Your task to perform on an android device: add a contact Image 0: 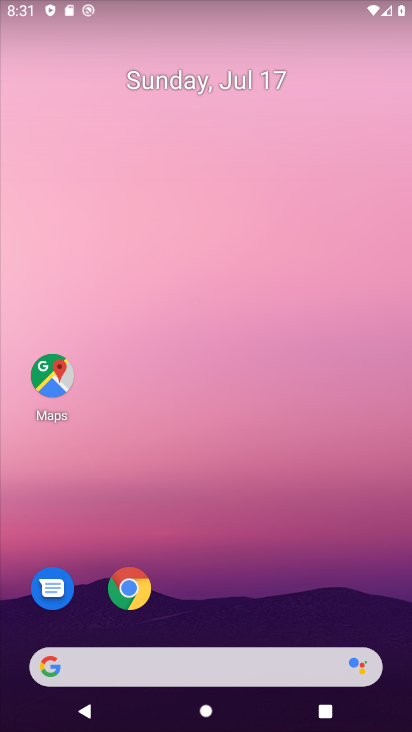
Step 0: drag from (170, 633) to (153, 24)
Your task to perform on an android device: add a contact Image 1: 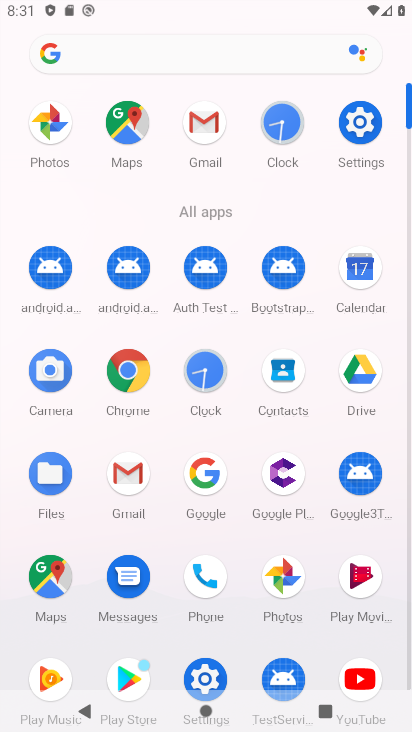
Step 1: click (212, 571)
Your task to perform on an android device: add a contact Image 2: 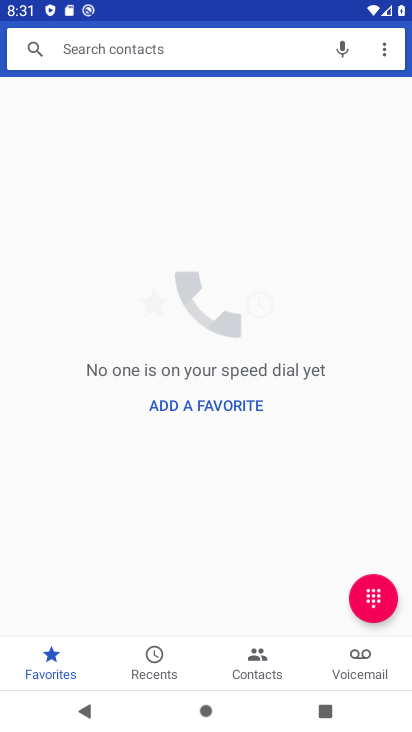
Step 2: click (262, 660)
Your task to perform on an android device: add a contact Image 3: 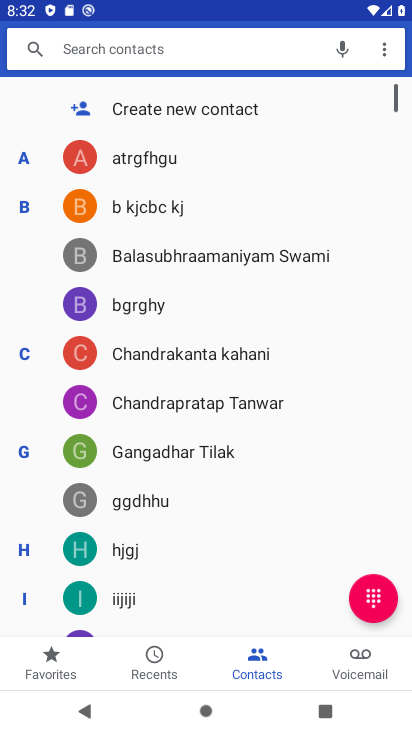
Step 3: click (139, 118)
Your task to perform on an android device: add a contact Image 4: 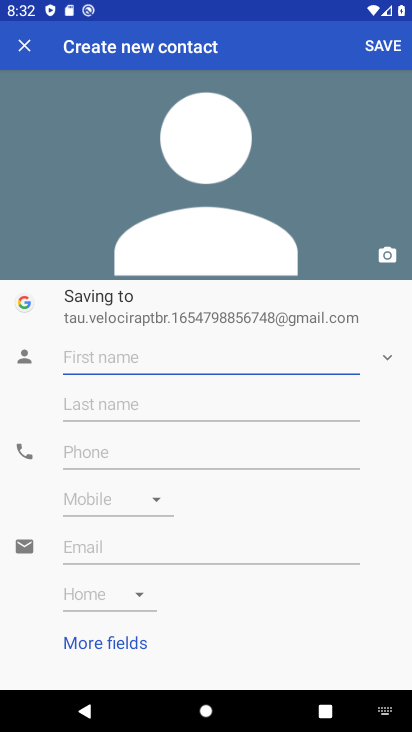
Step 4: type " input"
Your task to perform on an android device: add a contact Image 5: 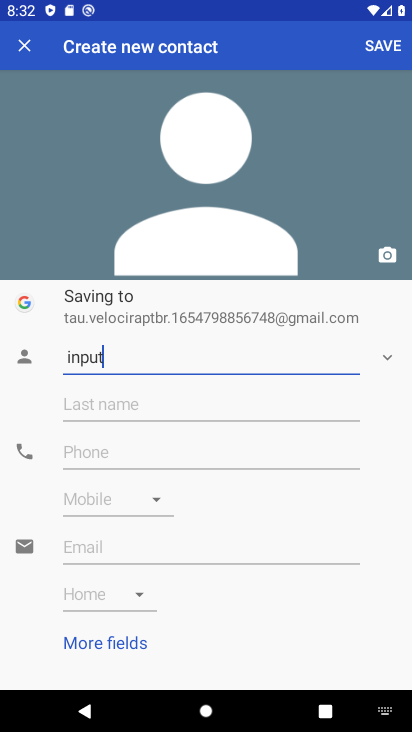
Step 5: type ""
Your task to perform on an android device: add a contact Image 6: 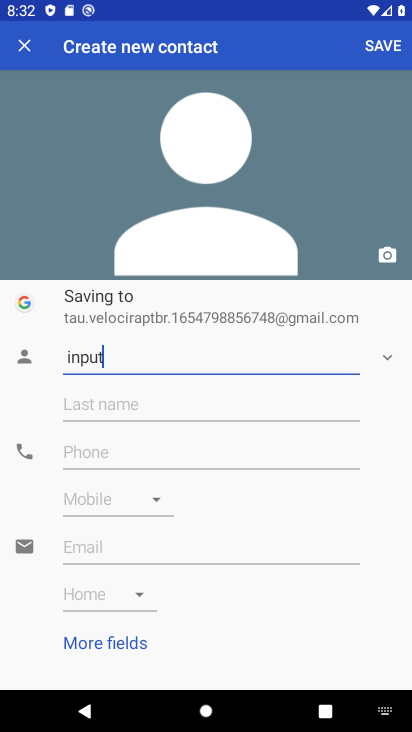
Step 6: click (134, 454)
Your task to perform on an android device: add a contact Image 7: 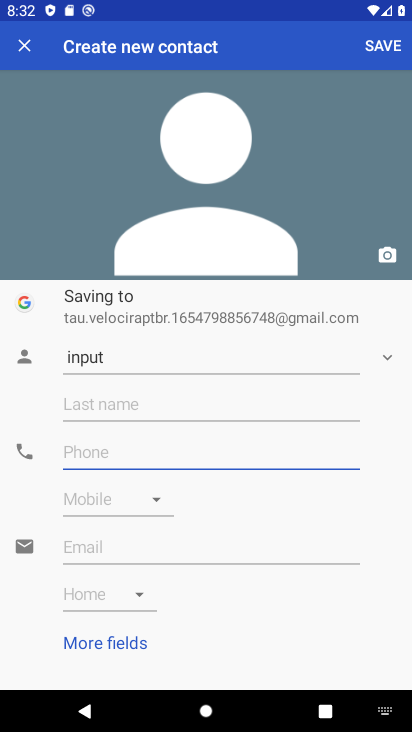
Step 7: type "88797"
Your task to perform on an android device: add a contact Image 8: 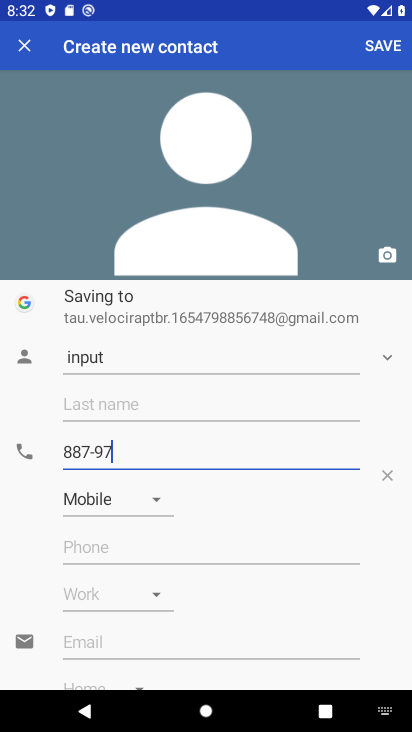
Step 8: click (362, 45)
Your task to perform on an android device: add a contact Image 9: 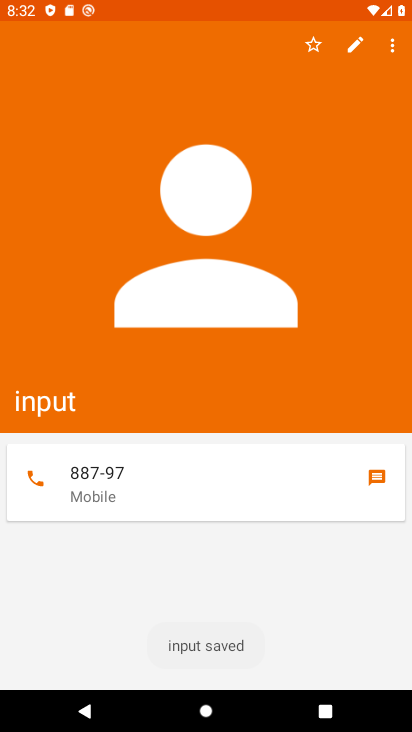
Step 9: task complete